Your task to perform on an android device: Open the phone app and click the voicemail tab. Image 0: 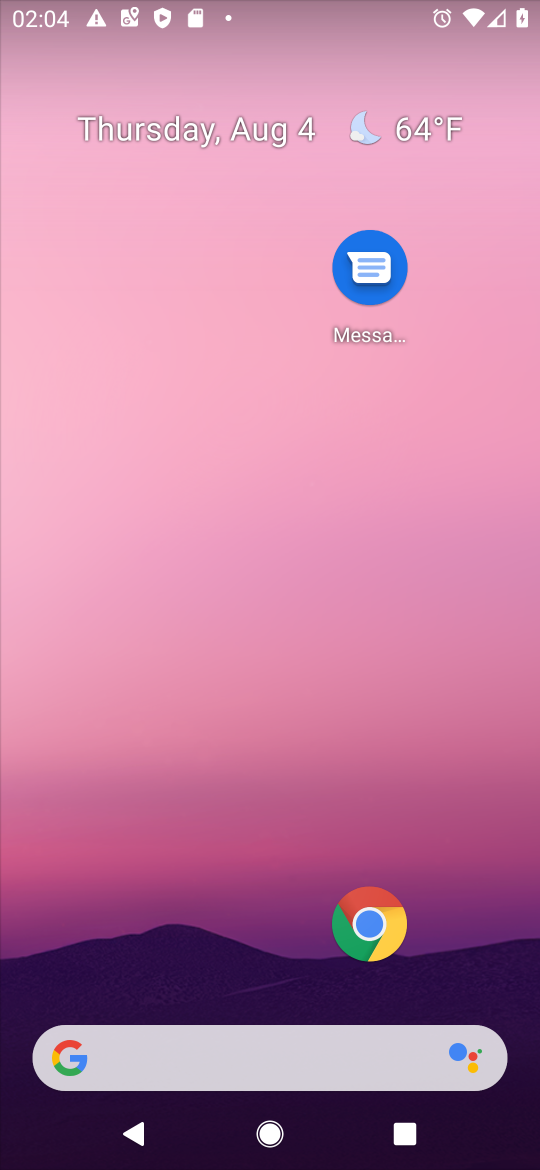
Step 0: drag from (86, 1083) to (348, 20)
Your task to perform on an android device: Open the phone app and click the voicemail tab. Image 1: 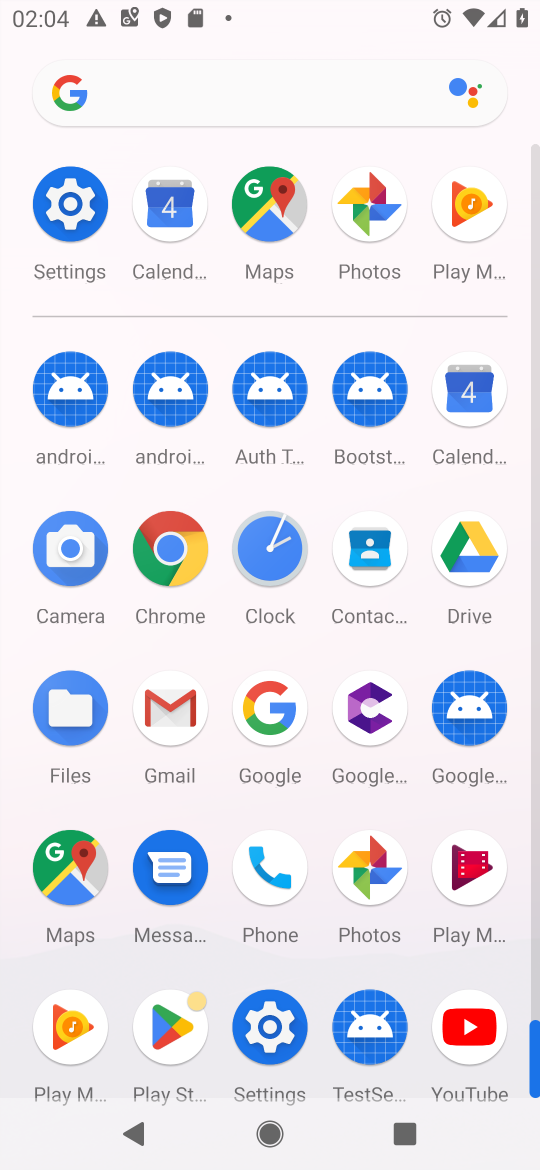
Step 1: click (241, 905)
Your task to perform on an android device: Open the phone app and click the voicemail tab. Image 2: 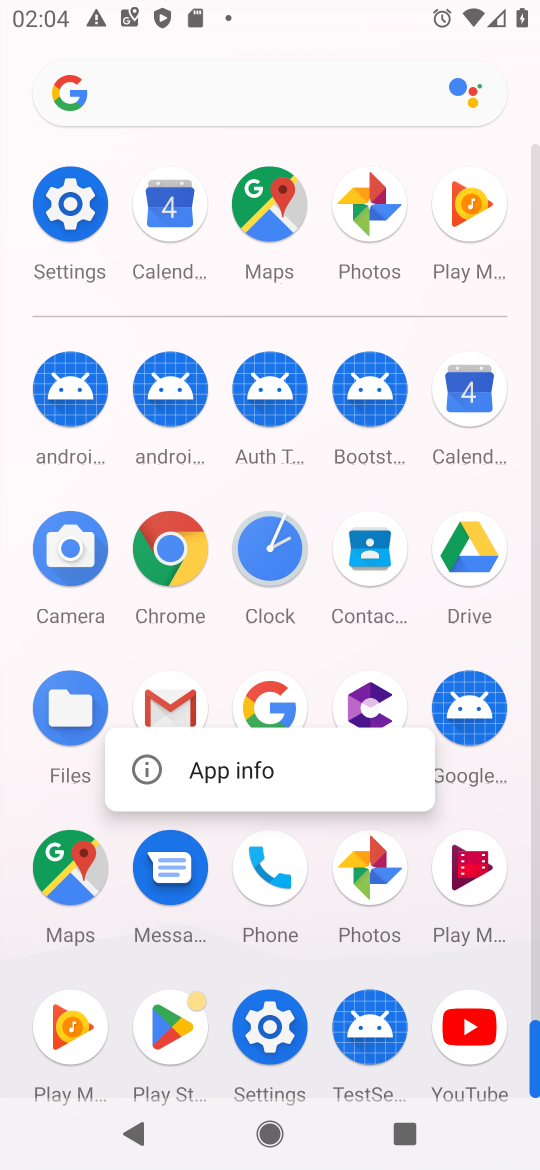
Step 2: click (256, 876)
Your task to perform on an android device: Open the phone app and click the voicemail tab. Image 3: 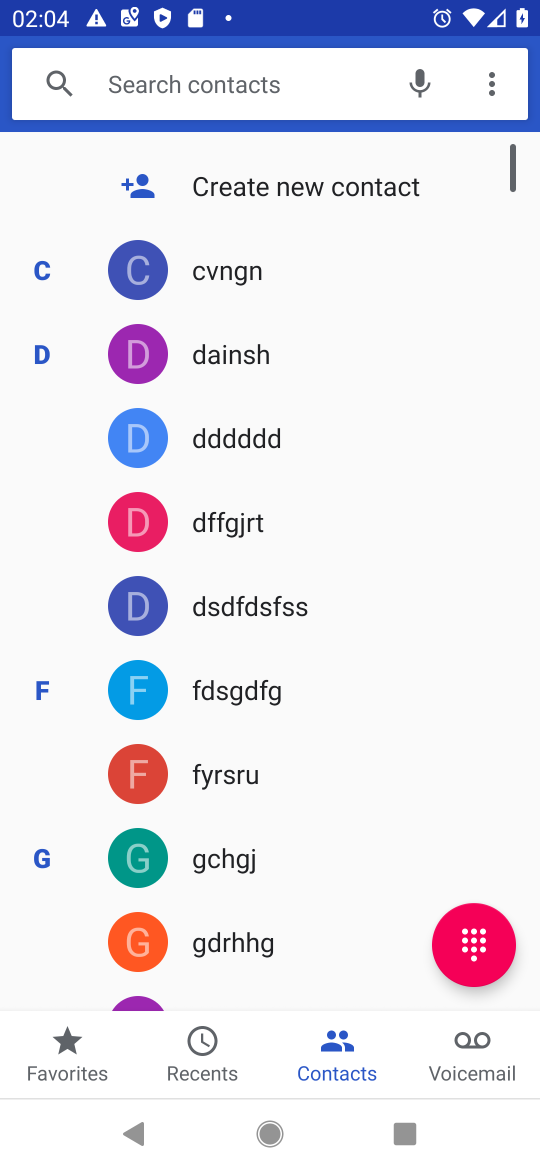
Step 3: click (468, 1043)
Your task to perform on an android device: Open the phone app and click the voicemail tab. Image 4: 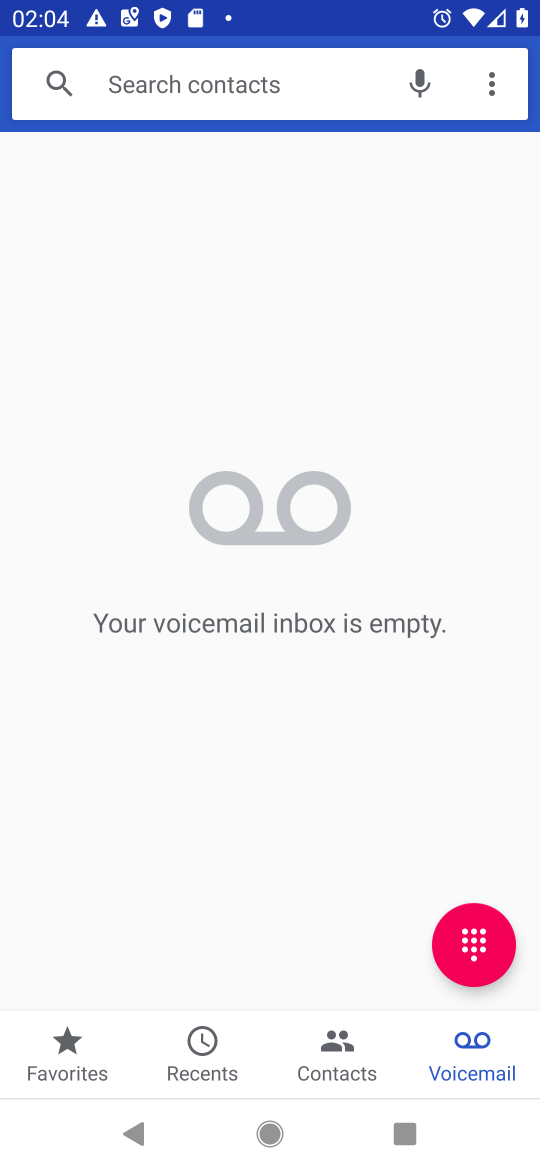
Step 4: task complete